Your task to perform on an android device: Open Google Chrome and click the shortcut for Amazon.com Image 0: 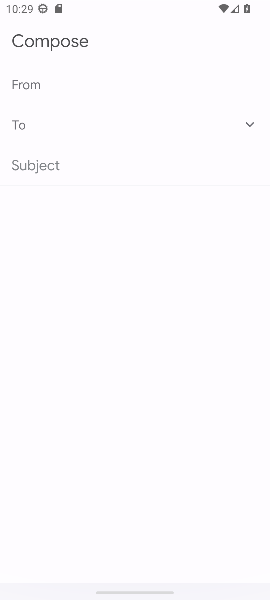
Step 0: click (229, 385)
Your task to perform on an android device: Open Google Chrome and click the shortcut for Amazon.com Image 1: 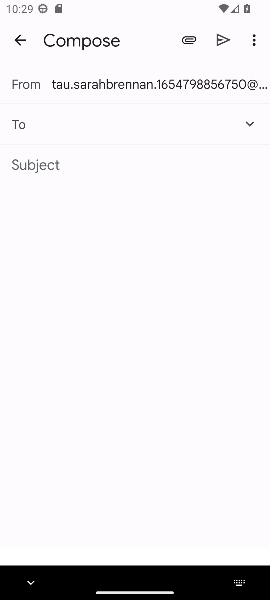
Step 1: press home button
Your task to perform on an android device: Open Google Chrome and click the shortcut for Amazon.com Image 2: 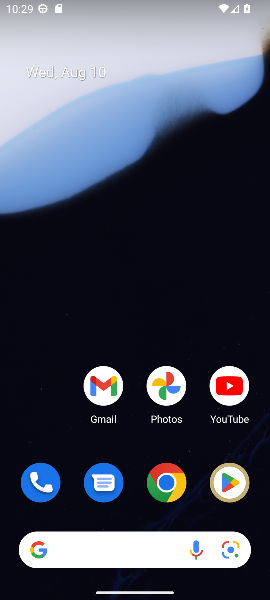
Step 2: click (178, 491)
Your task to perform on an android device: Open Google Chrome and click the shortcut for Amazon.com Image 3: 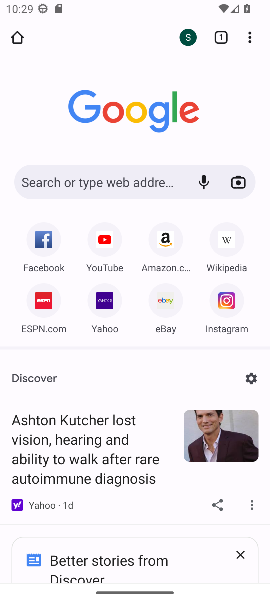
Step 3: click (249, 34)
Your task to perform on an android device: Open Google Chrome and click the shortcut for Amazon.com Image 4: 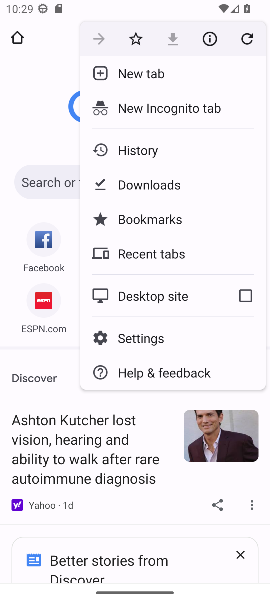
Step 4: click (20, 118)
Your task to perform on an android device: Open Google Chrome and click the shortcut for Amazon.com Image 5: 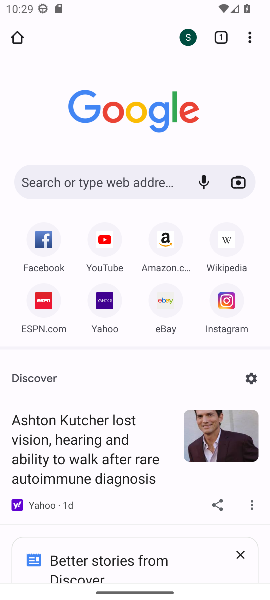
Step 5: click (171, 241)
Your task to perform on an android device: Open Google Chrome and click the shortcut for Amazon.com Image 6: 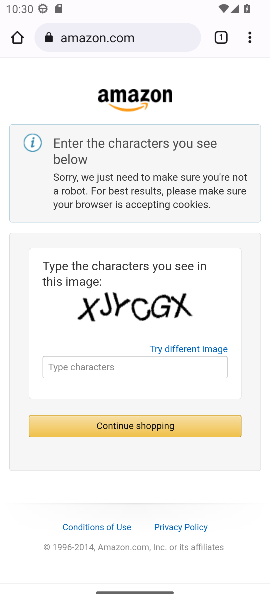
Step 6: task complete